Your task to perform on an android device: turn off translation in the chrome app Image 0: 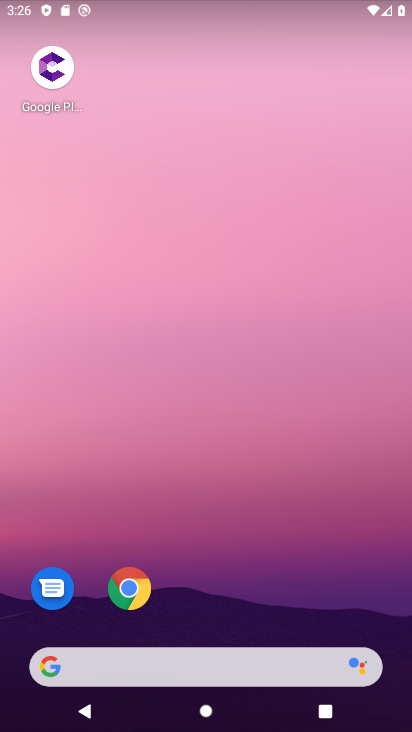
Step 0: click (129, 613)
Your task to perform on an android device: turn off translation in the chrome app Image 1: 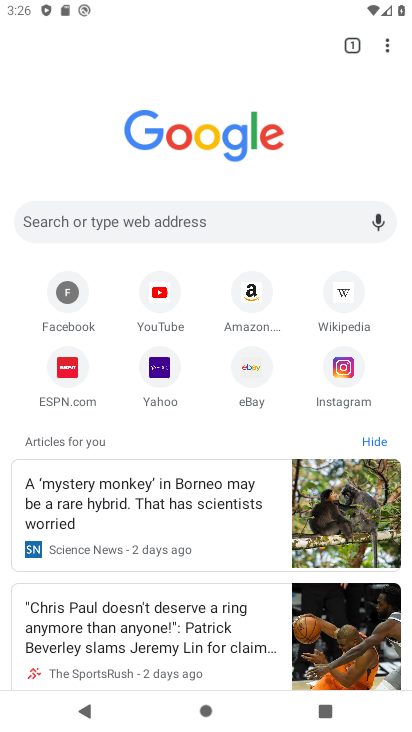
Step 1: click (391, 35)
Your task to perform on an android device: turn off translation in the chrome app Image 2: 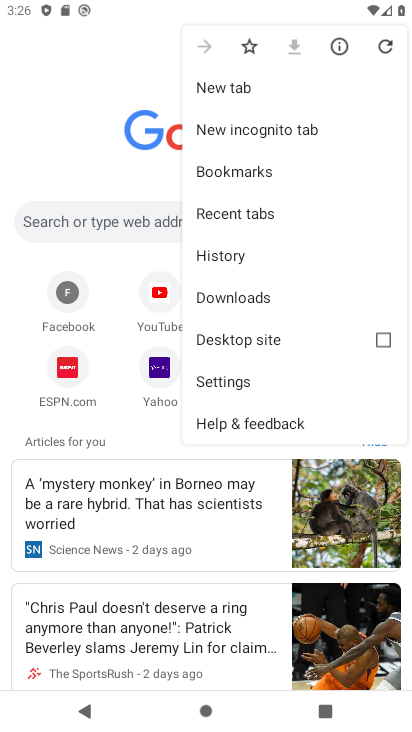
Step 2: click (210, 374)
Your task to perform on an android device: turn off translation in the chrome app Image 3: 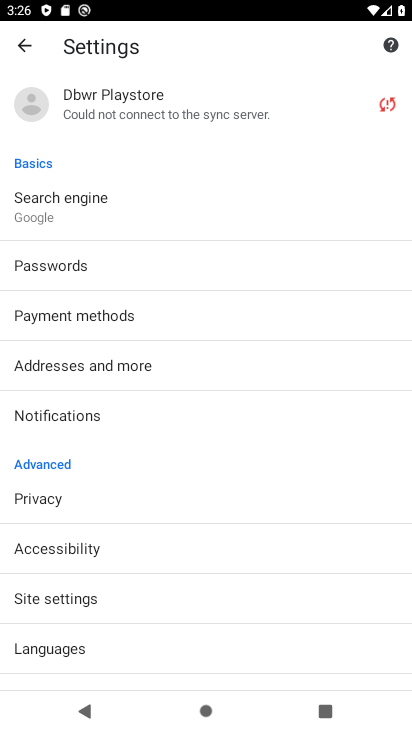
Step 3: click (137, 403)
Your task to perform on an android device: turn off translation in the chrome app Image 4: 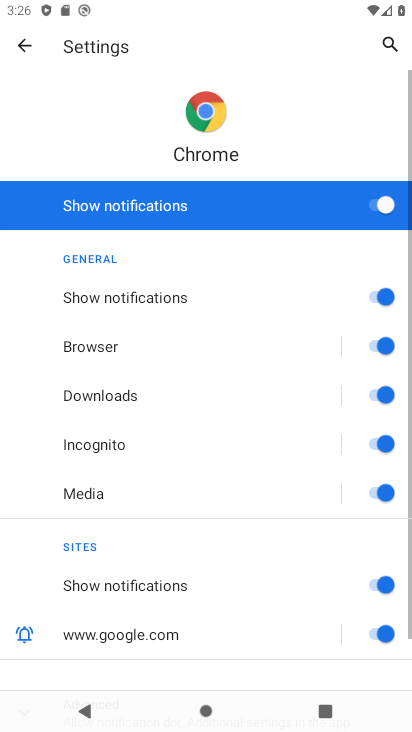
Step 4: click (316, 195)
Your task to perform on an android device: turn off translation in the chrome app Image 5: 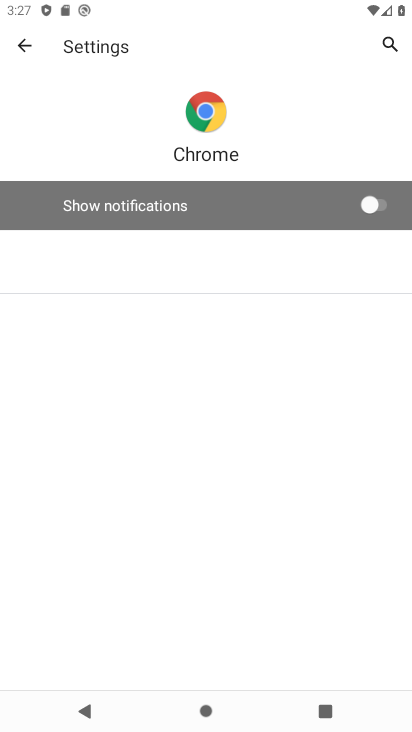
Step 5: task complete